Your task to perform on an android device: change the clock display to show seconds Image 0: 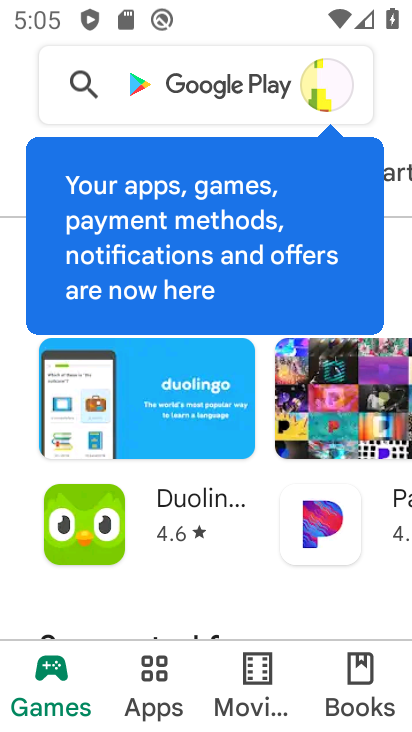
Step 0: press home button
Your task to perform on an android device: change the clock display to show seconds Image 1: 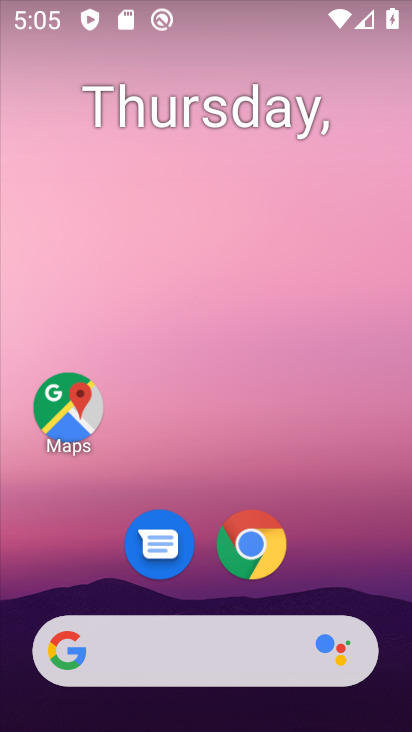
Step 1: drag from (332, 461) to (311, 122)
Your task to perform on an android device: change the clock display to show seconds Image 2: 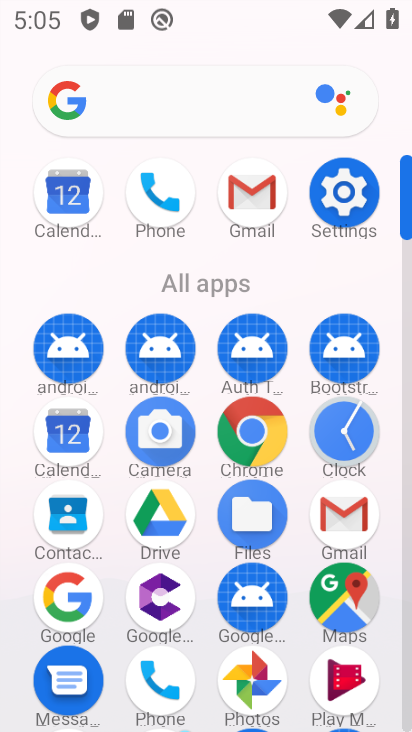
Step 2: click (332, 416)
Your task to perform on an android device: change the clock display to show seconds Image 3: 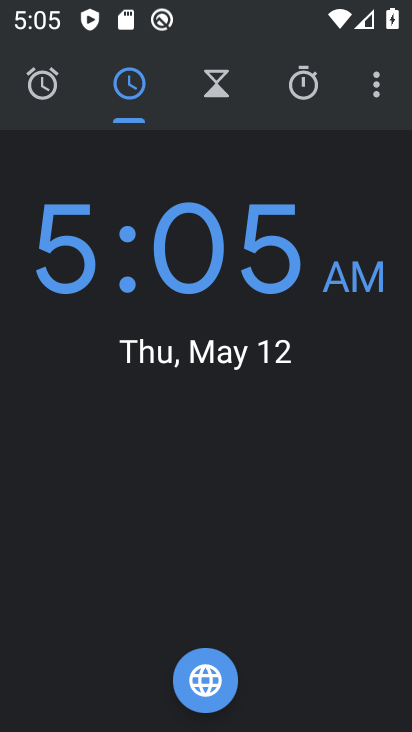
Step 3: click (380, 74)
Your task to perform on an android device: change the clock display to show seconds Image 4: 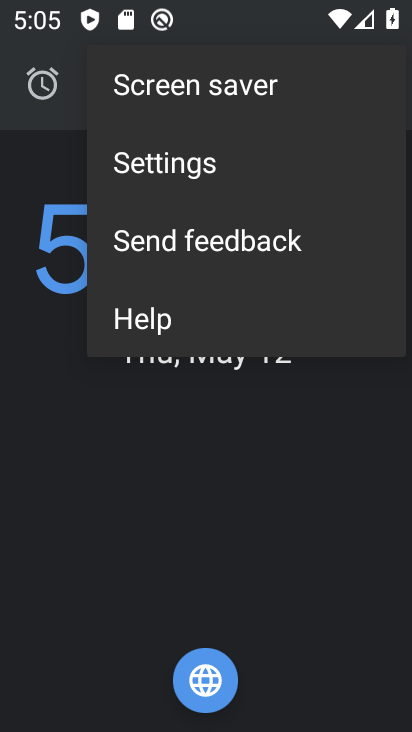
Step 4: click (260, 175)
Your task to perform on an android device: change the clock display to show seconds Image 5: 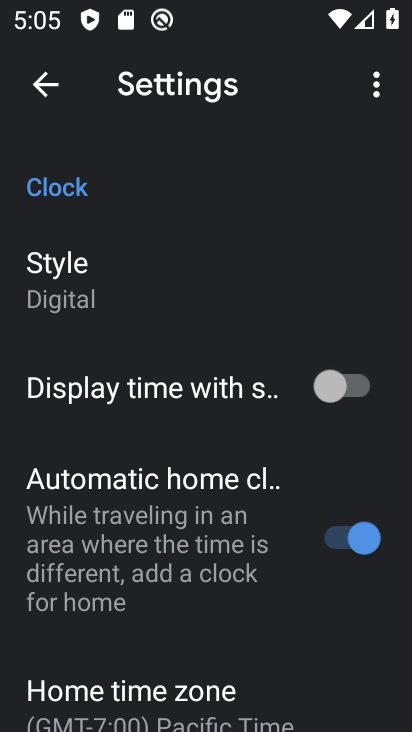
Step 5: click (357, 377)
Your task to perform on an android device: change the clock display to show seconds Image 6: 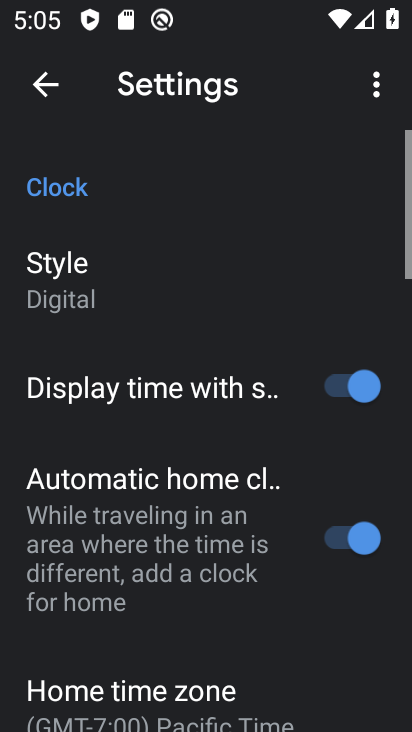
Step 6: task complete